Your task to perform on an android device: Google the capital of Uruguay Image 0: 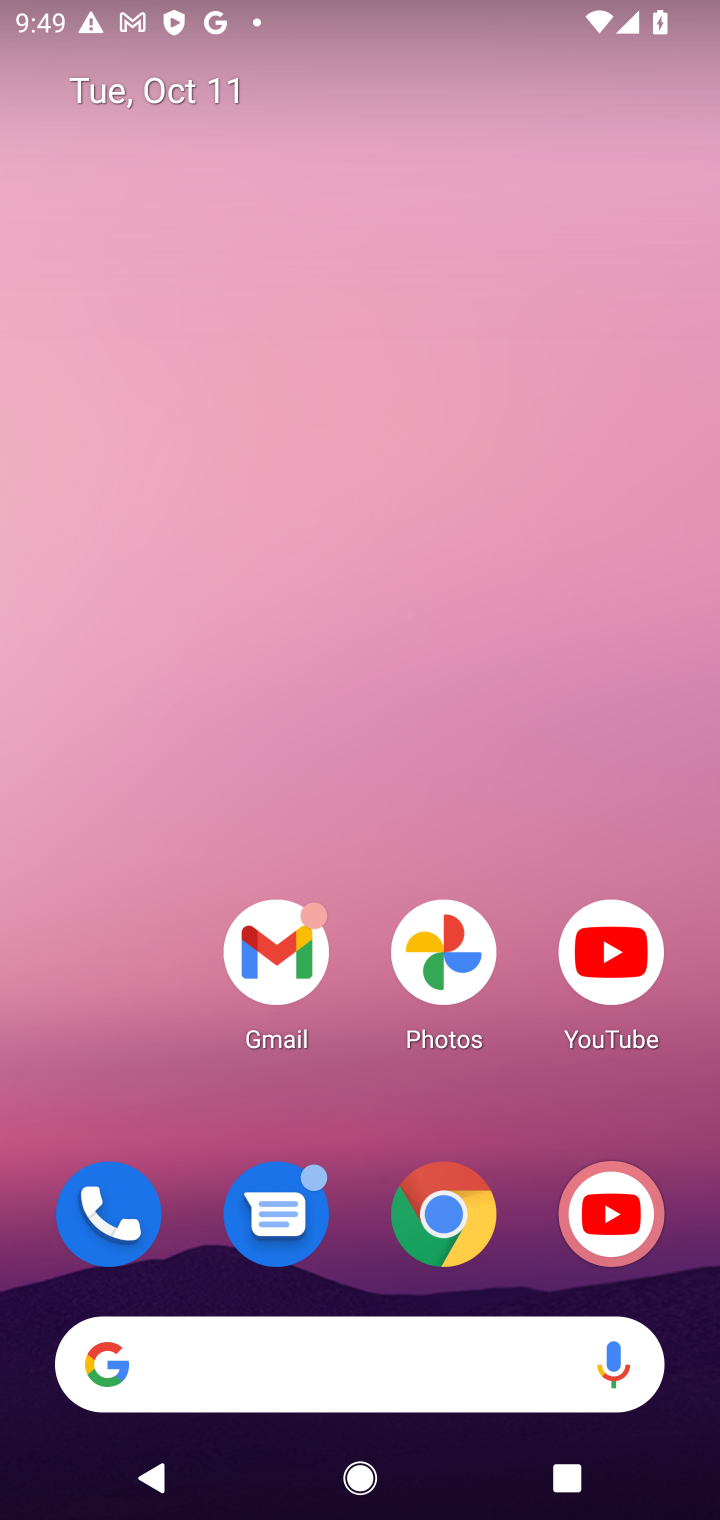
Step 0: drag from (462, 497) to (464, 24)
Your task to perform on an android device: Google the capital of Uruguay Image 1: 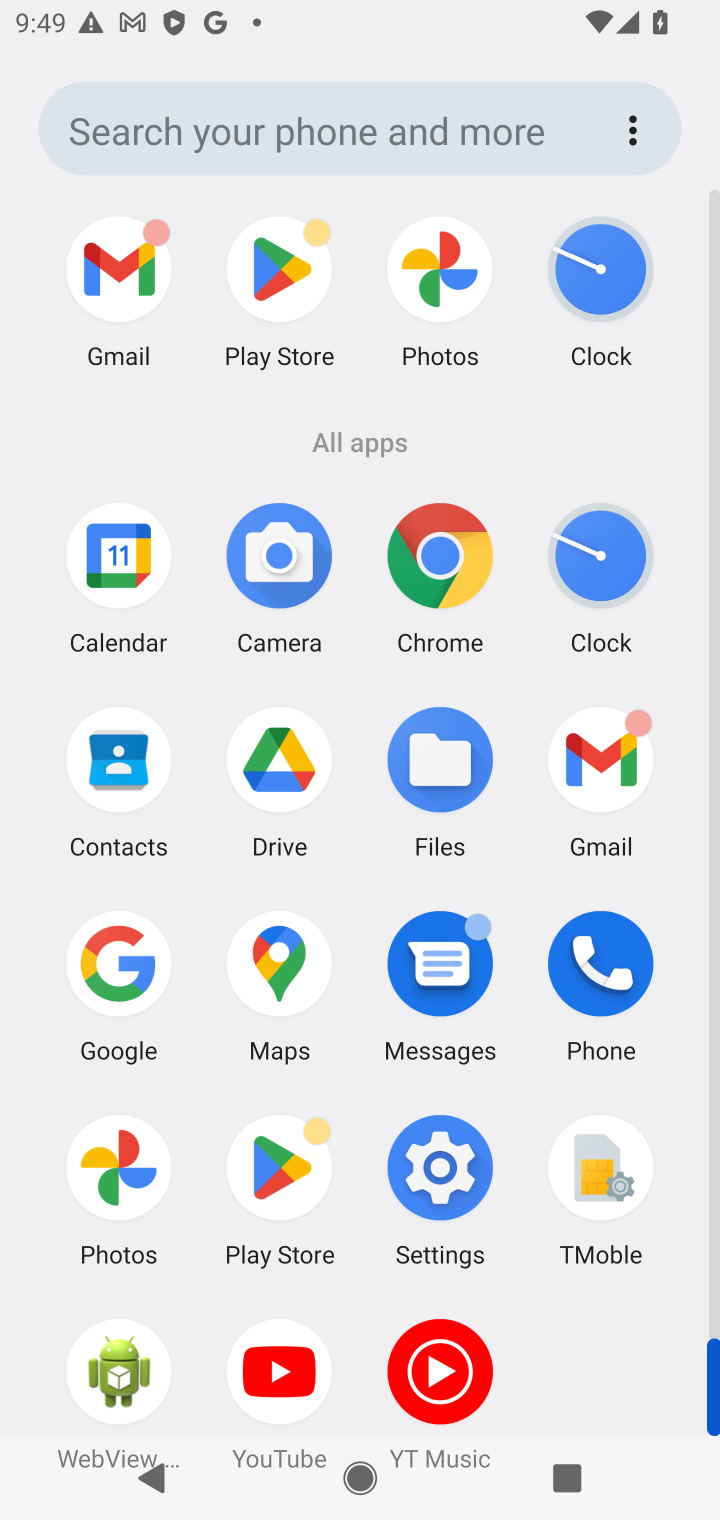
Step 1: click (151, 948)
Your task to perform on an android device: Google the capital of Uruguay Image 2: 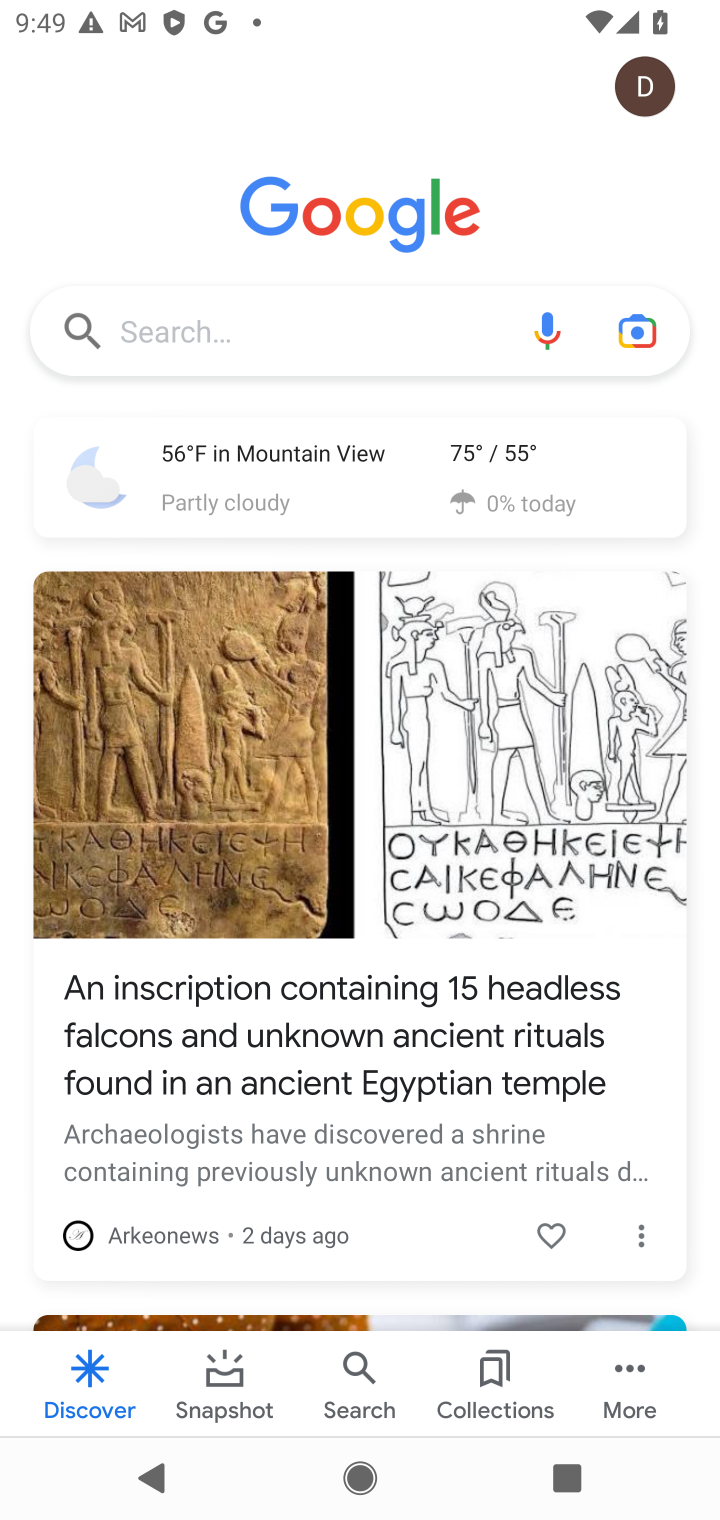
Step 2: click (404, 330)
Your task to perform on an android device: Google the capital of Uruguay Image 3: 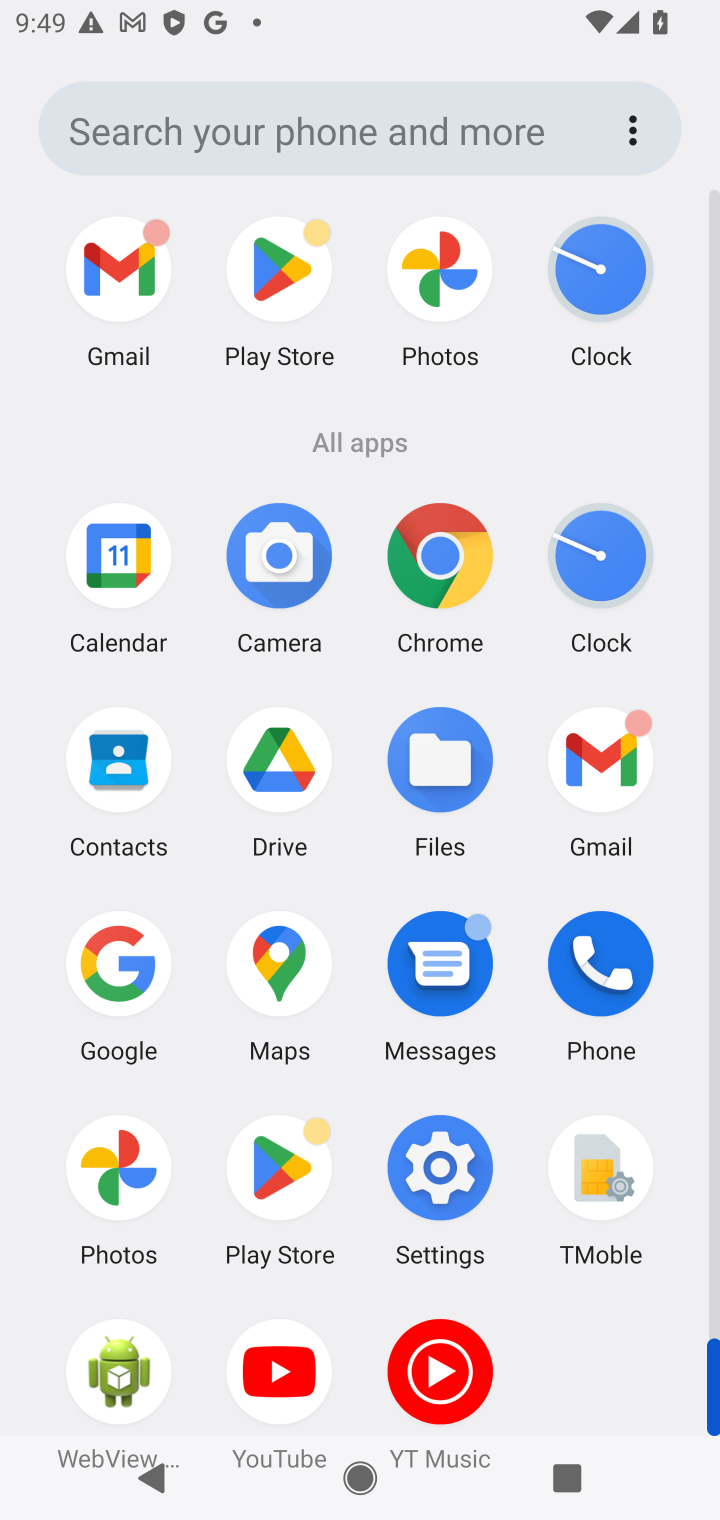
Step 3: click (141, 999)
Your task to perform on an android device: Google the capital of Uruguay Image 4: 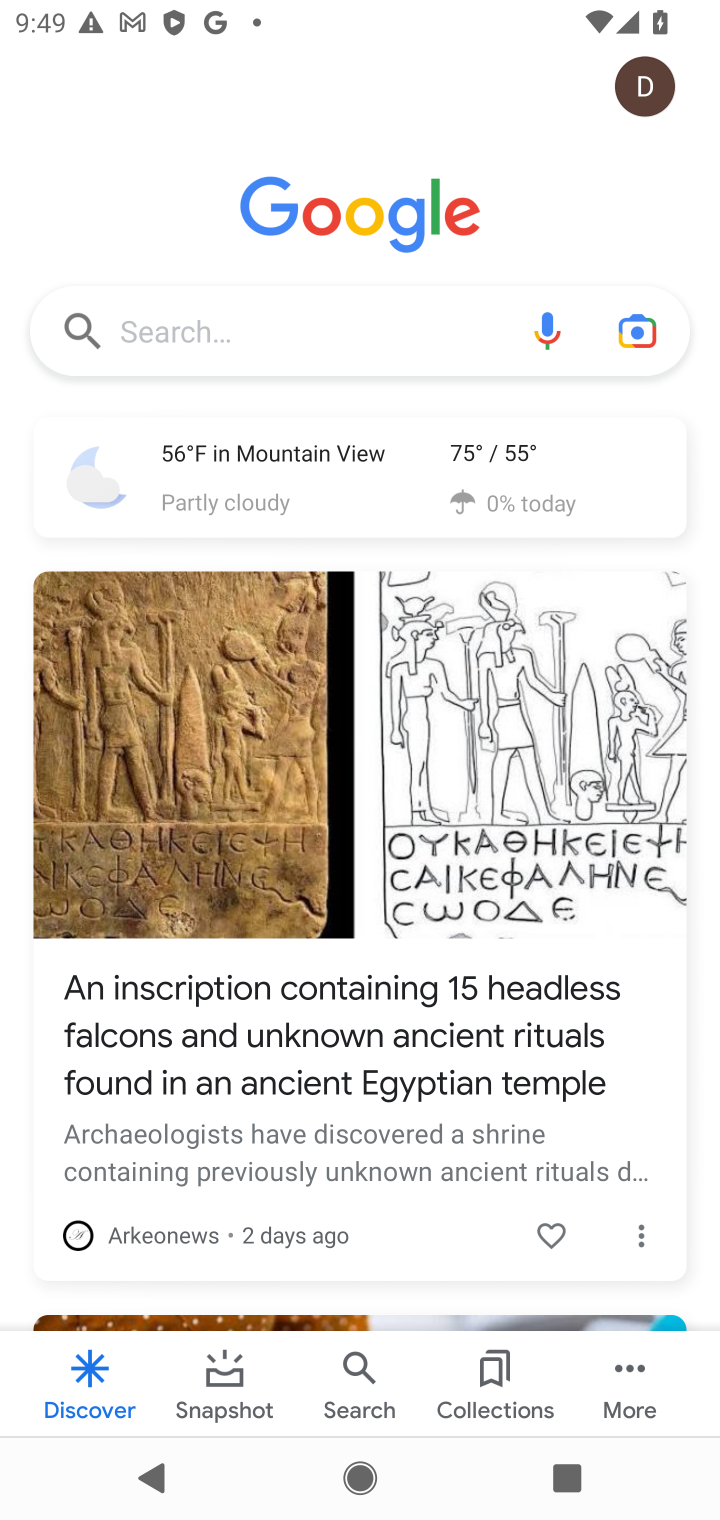
Step 4: click (383, 313)
Your task to perform on an android device: Google the capital of Uruguay Image 5: 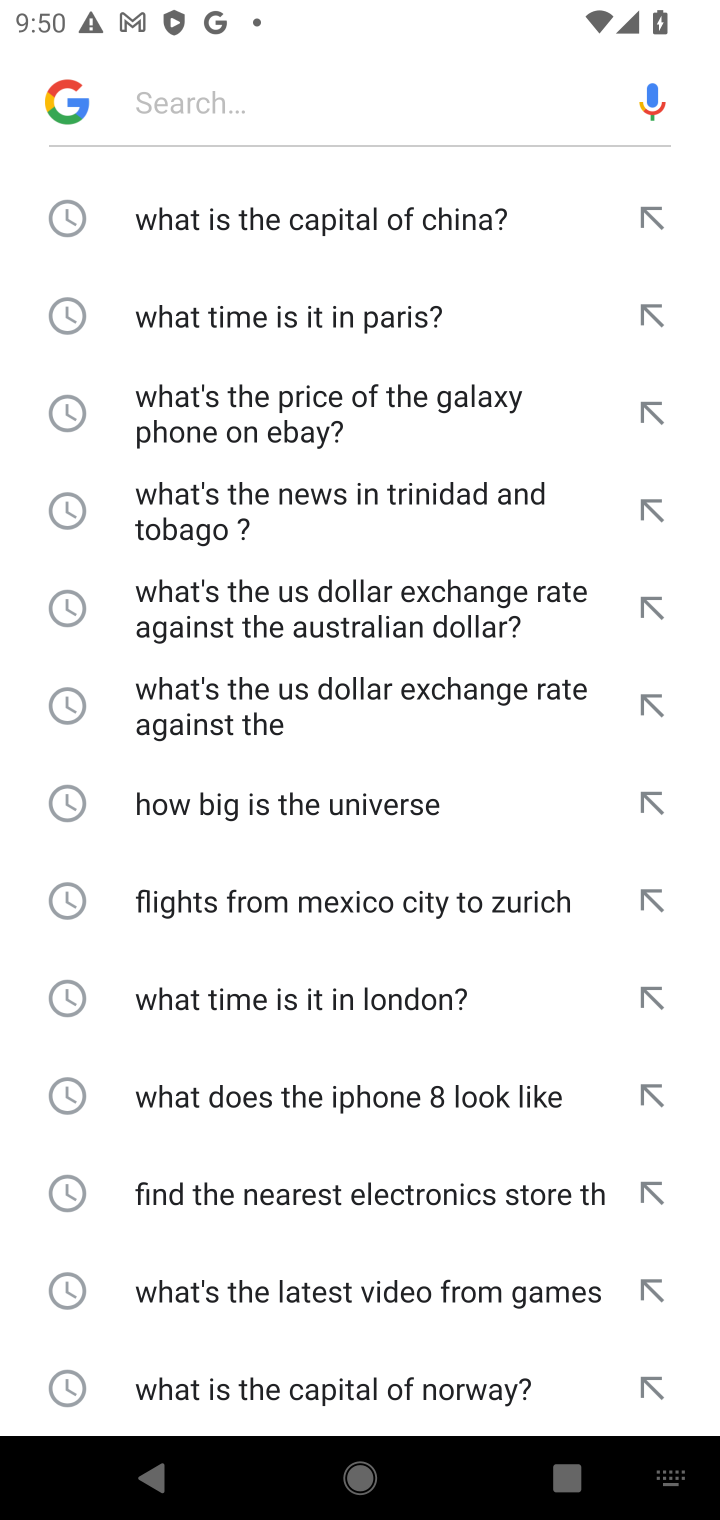
Step 5: type "the capital of Uruguay"
Your task to perform on an android device: Google the capital of Uruguay Image 6: 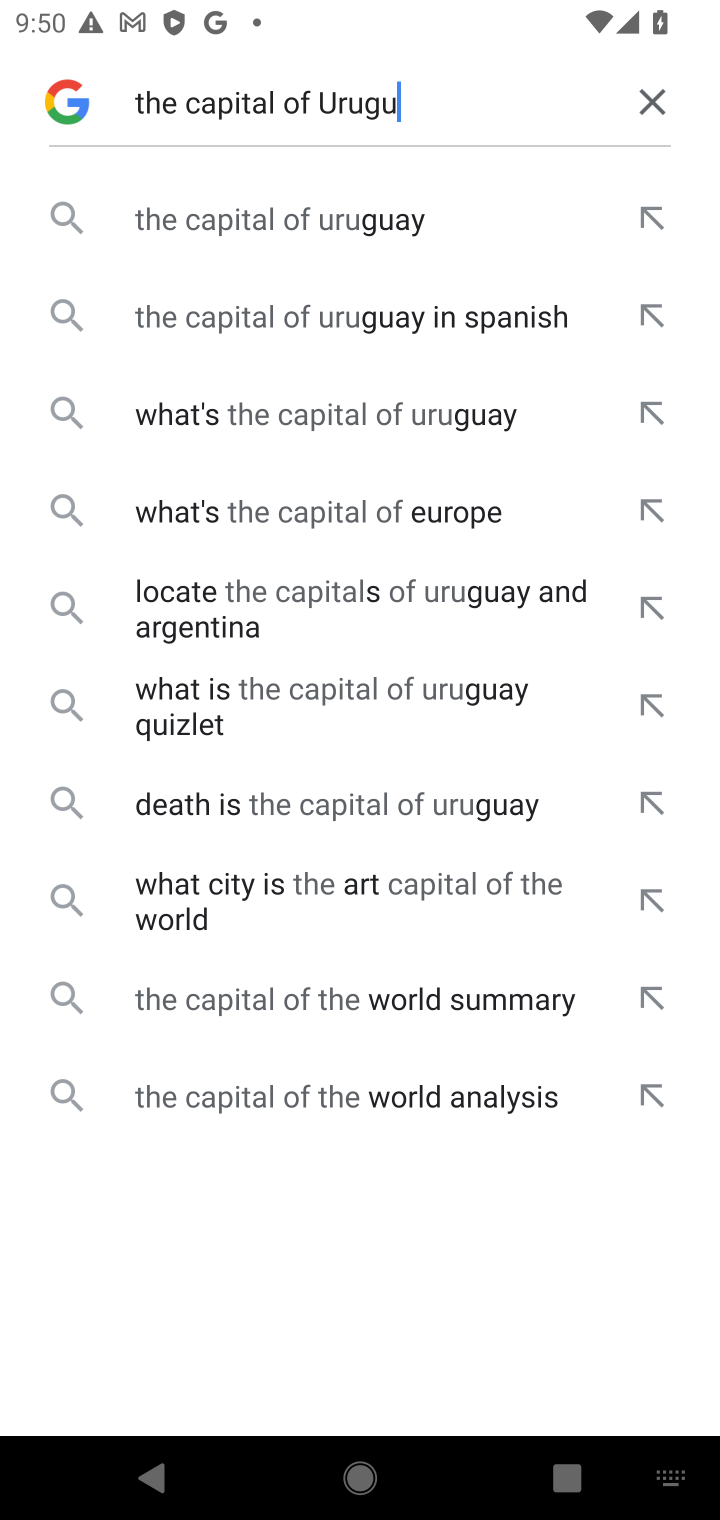
Step 6: press enter
Your task to perform on an android device: Google the capital of Uruguay Image 7: 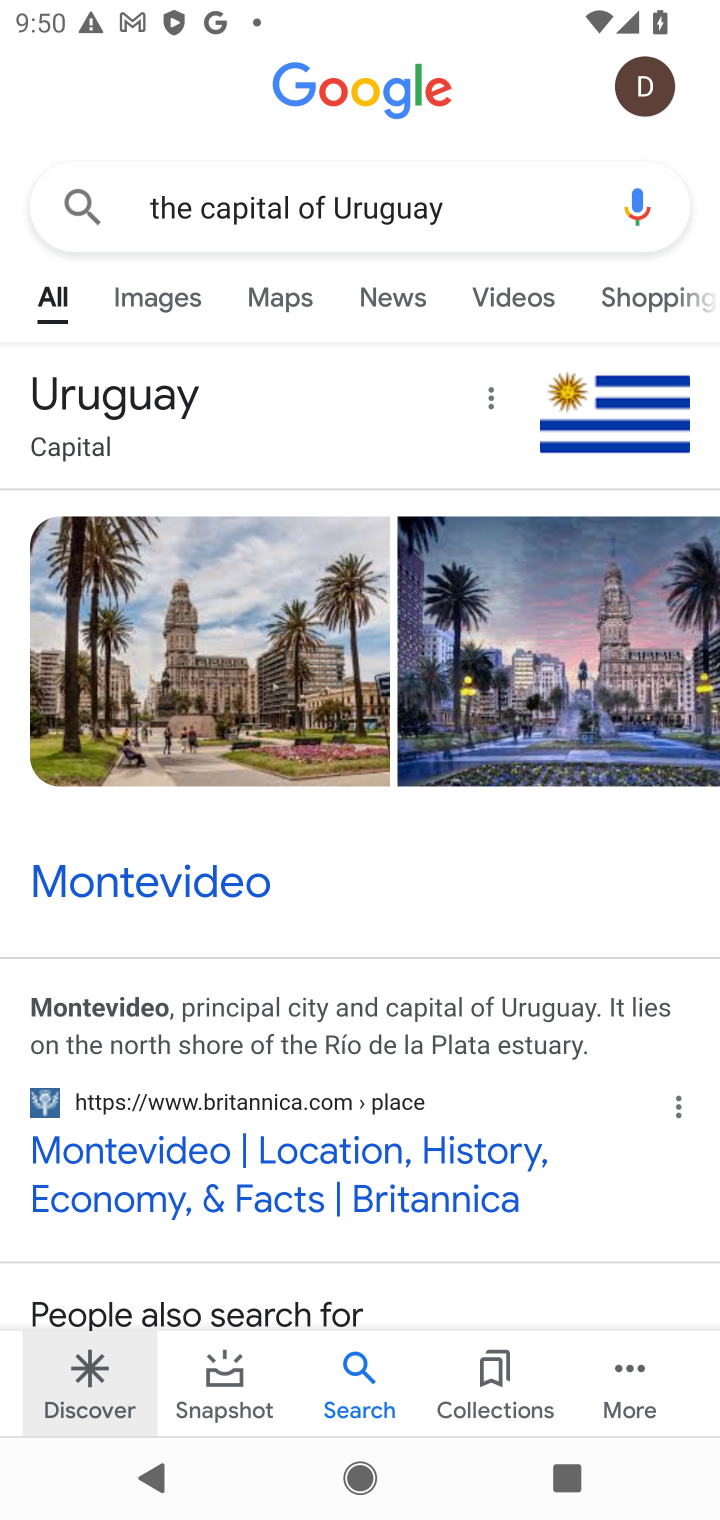
Step 7: task complete